Your task to perform on an android device: Check the weather Image 0: 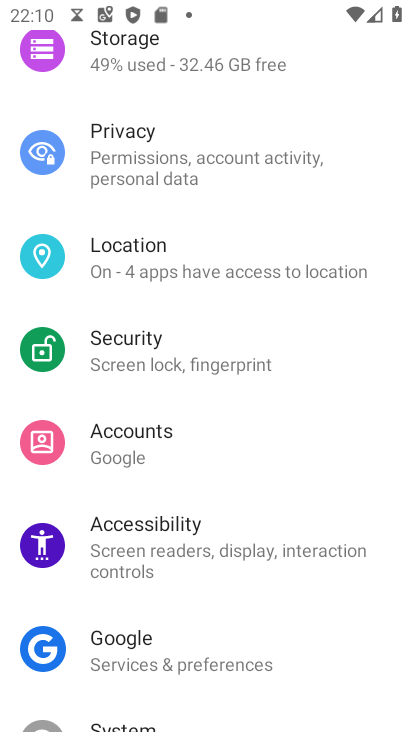
Step 0: press home button
Your task to perform on an android device: Check the weather Image 1: 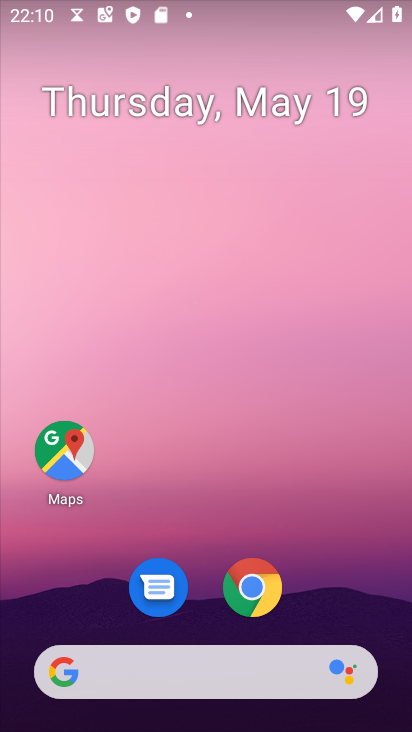
Step 1: drag from (24, 293) to (347, 224)
Your task to perform on an android device: Check the weather Image 2: 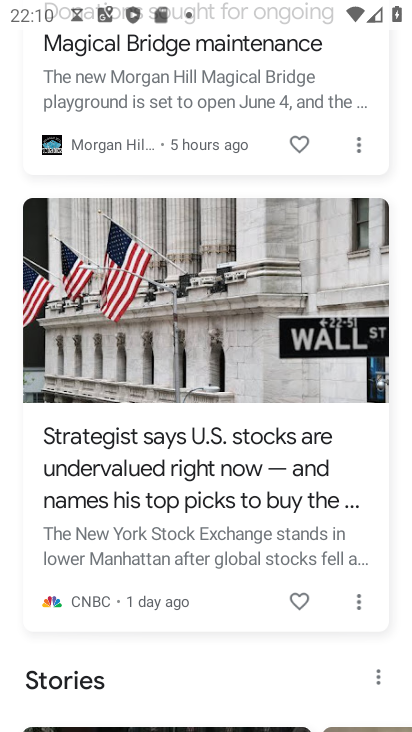
Step 2: drag from (148, 156) to (160, 711)
Your task to perform on an android device: Check the weather Image 3: 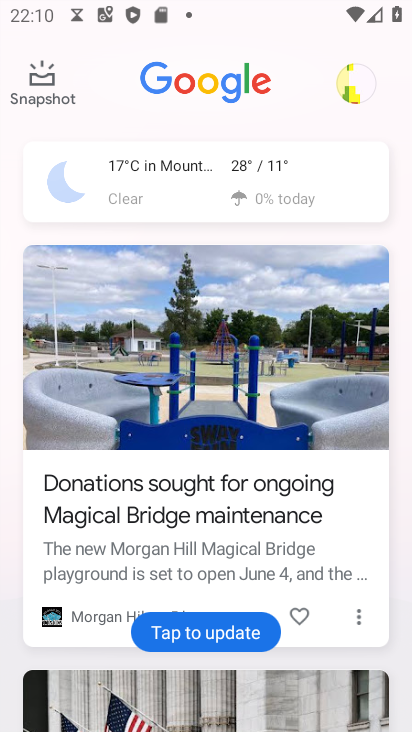
Step 3: click (88, 193)
Your task to perform on an android device: Check the weather Image 4: 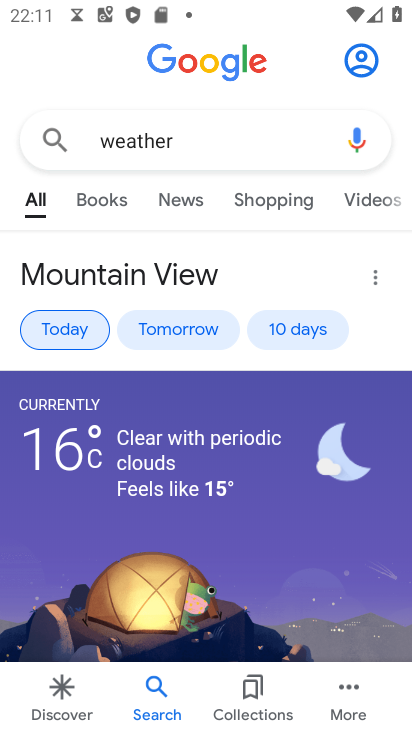
Step 4: task complete